Your task to perform on an android device: choose inbox layout in the gmail app Image 0: 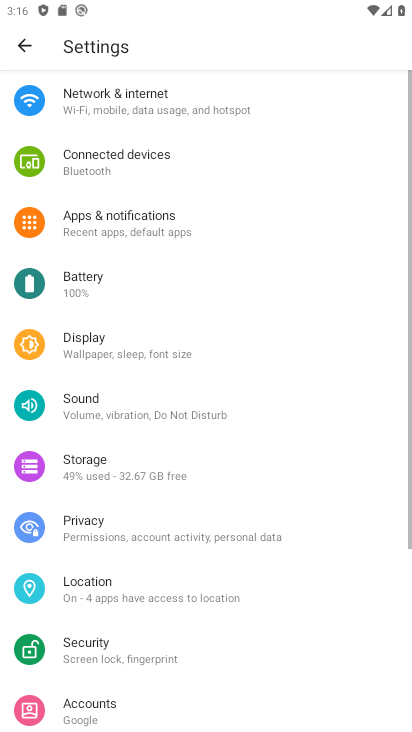
Step 0: press home button
Your task to perform on an android device: choose inbox layout in the gmail app Image 1: 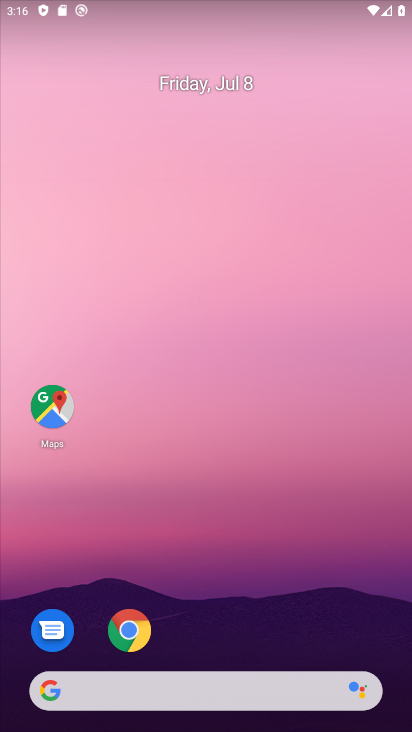
Step 1: drag from (221, 651) to (260, 46)
Your task to perform on an android device: choose inbox layout in the gmail app Image 2: 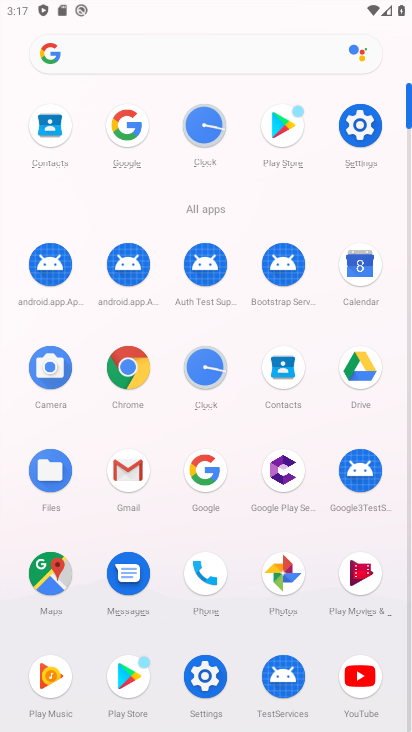
Step 2: click (127, 468)
Your task to perform on an android device: choose inbox layout in the gmail app Image 3: 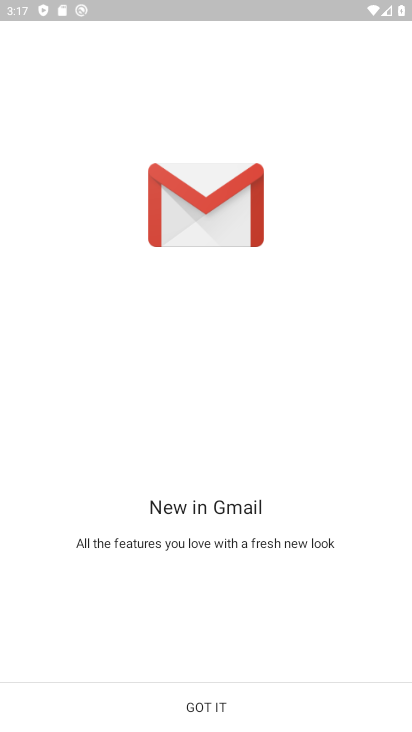
Step 3: click (204, 706)
Your task to perform on an android device: choose inbox layout in the gmail app Image 4: 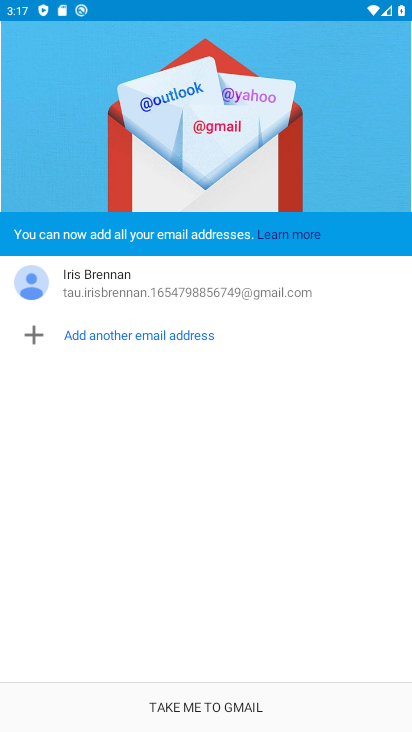
Step 4: click (204, 706)
Your task to perform on an android device: choose inbox layout in the gmail app Image 5: 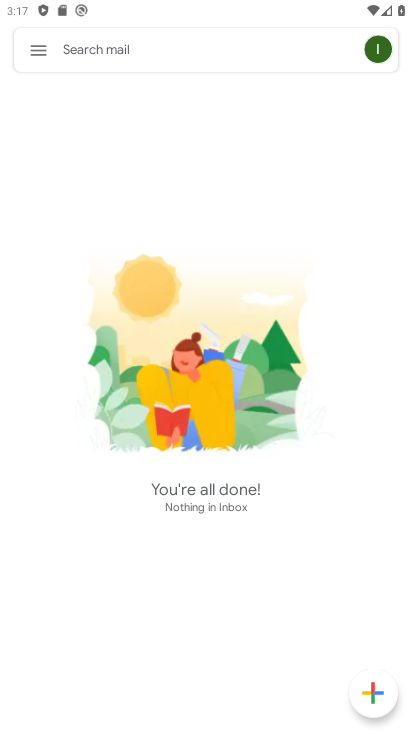
Step 5: click (35, 50)
Your task to perform on an android device: choose inbox layout in the gmail app Image 6: 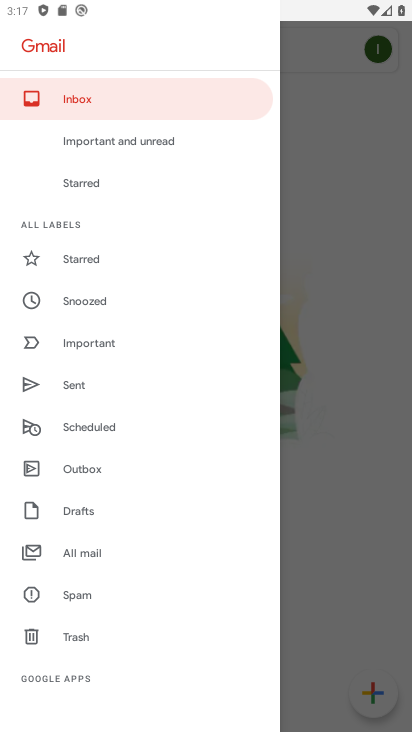
Step 6: drag from (101, 611) to (154, 509)
Your task to perform on an android device: choose inbox layout in the gmail app Image 7: 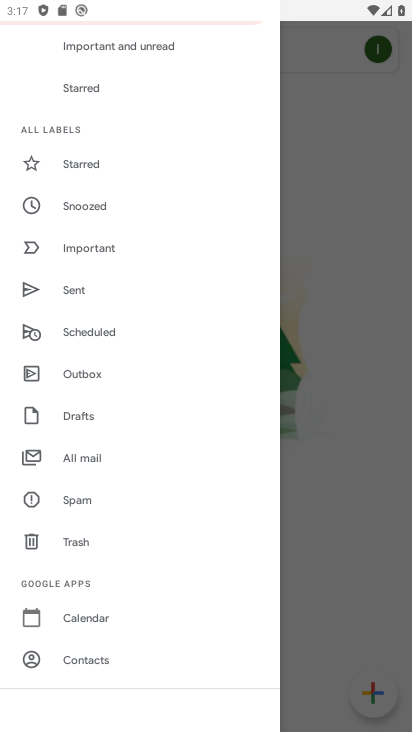
Step 7: drag from (76, 637) to (169, 509)
Your task to perform on an android device: choose inbox layout in the gmail app Image 8: 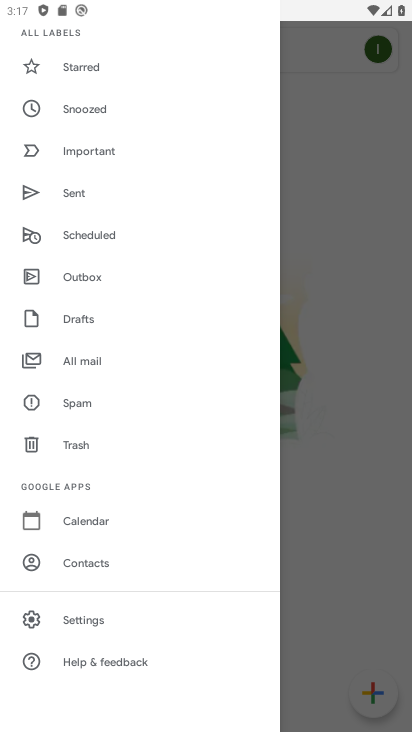
Step 8: click (84, 616)
Your task to perform on an android device: choose inbox layout in the gmail app Image 9: 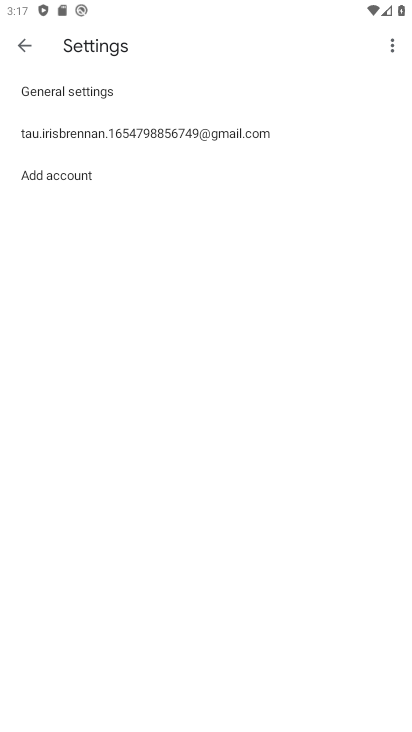
Step 9: click (207, 131)
Your task to perform on an android device: choose inbox layout in the gmail app Image 10: 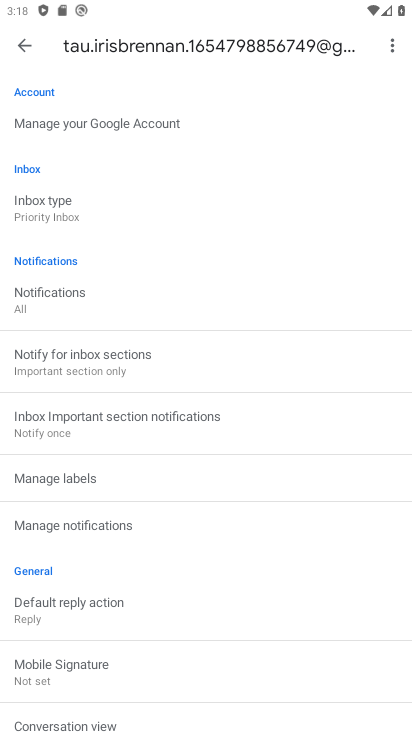
Step 10: click (56, 208)
Your task to perform on an android device: choose inbox layout in the gmail app Image 11: 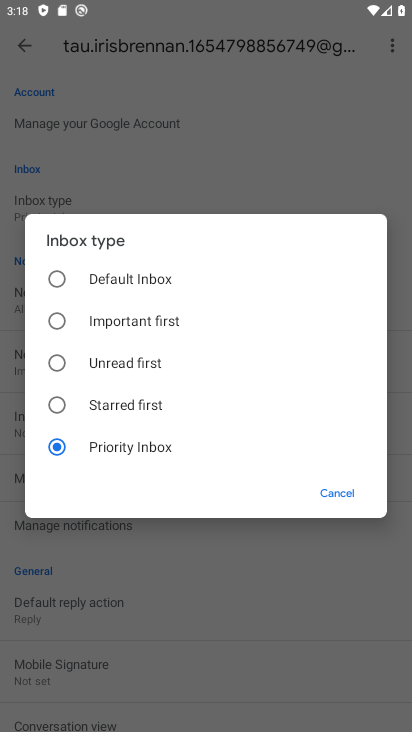
Step 11: click (57, 358)
Your task to perform on an android device: choose inbox layout in the gmail app Image 12: 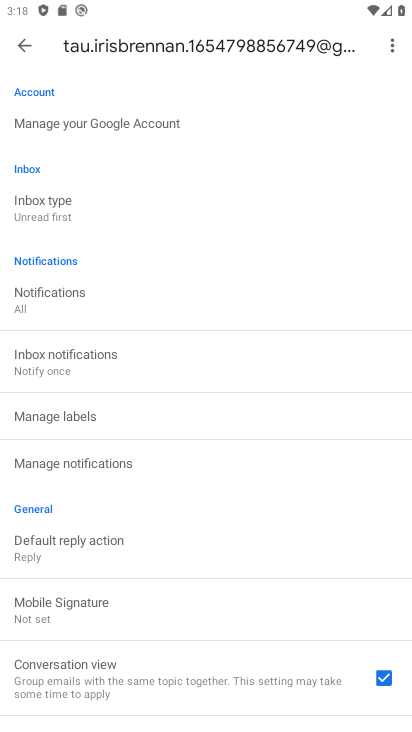
Step 12: task complete